Your task to perform on an android device: open the mobile data screen to see how much data has been used Image 0: 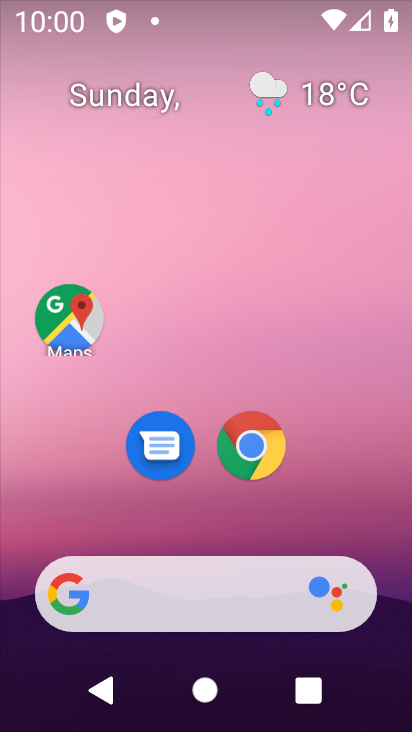
Step 0: drag from (206, 510) to (218, 43)
Your task to perform on an android device: open the mobile data screen to see how much data has been used Image 1: 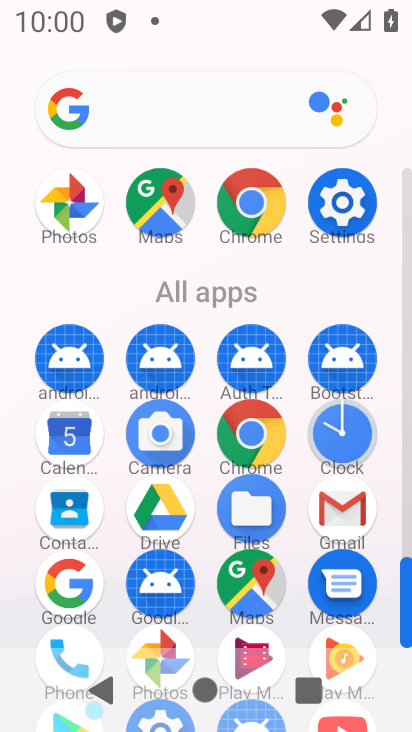
Step 1: click (339, 201)
Your task to perform on an android device: open the mobile data screen to see how much data has been used Image 2: 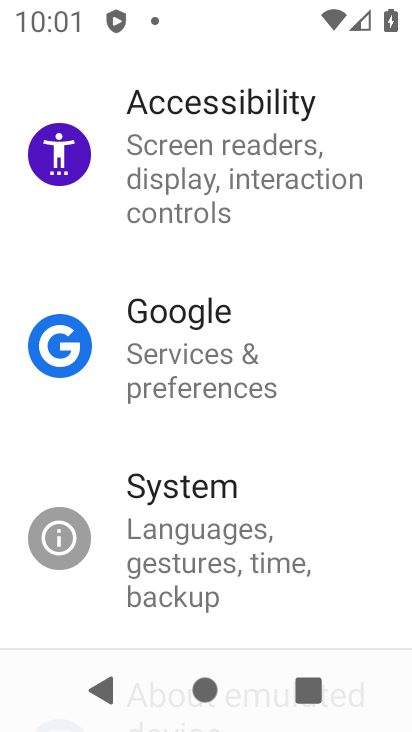
Step 2: drag from (226, 111) to (233, 639)
Your task to perform on an android device: open the mobile data screen to see how much data has been used Image 3: 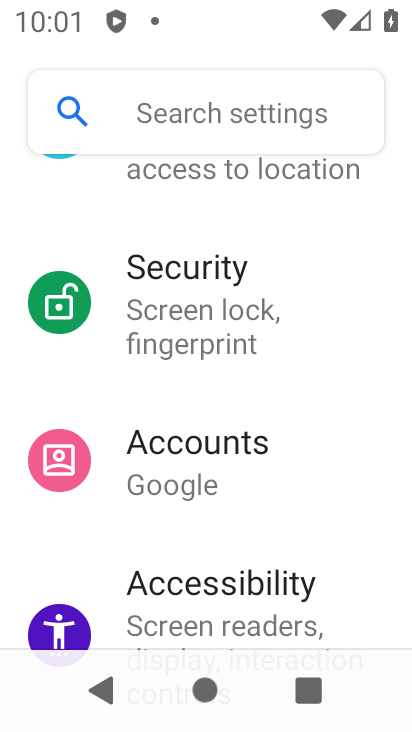
Step 3: drag from (211, 170) to (226, 681)
Your task to perform on an android device: open the mobile data screen to see how much data has been used Image 4: 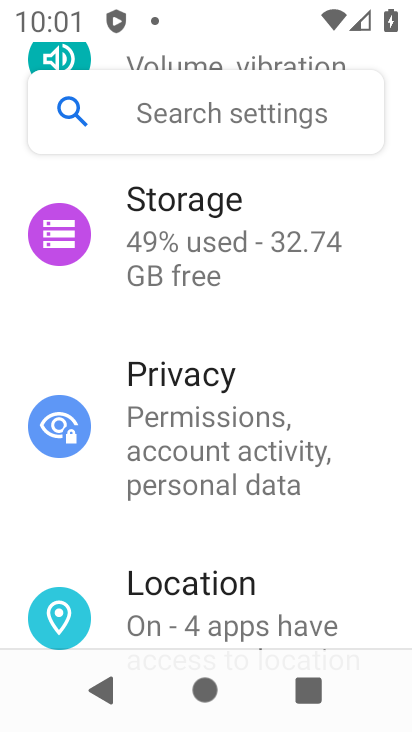
Step 4: drag from (222, 165) to (229, 696)
Your task to perform on an android device: open the mobile data screen to see how much data has been used Image 5: 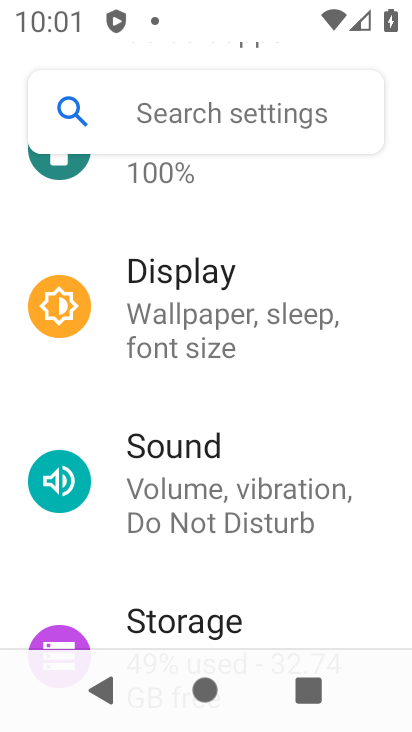
Step 5: drag from (257, 176) to (249, 687)
Your task to perform on an android device: open the mobile data screen to see how much data has been used Image 6: 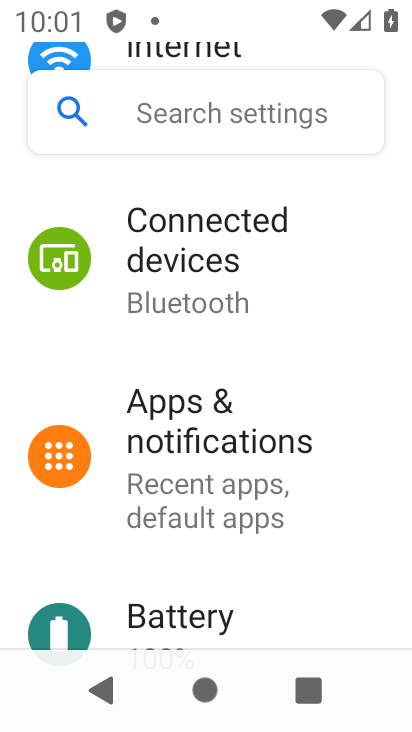
Step 6: drag from (246, 175) to (267, 617)
Your task to perform on an android device: open the mobile data screen to see how much data has been used Image 7: 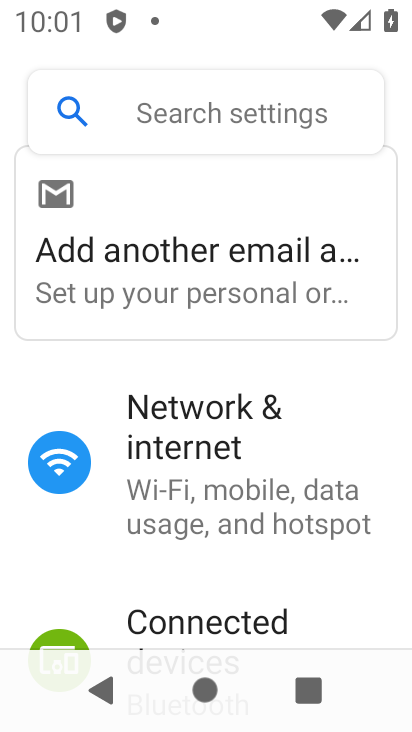
Step 7: click (260, 437)
Your task to perform on an android device: open the mobile data screen to see how much data has been used Image 8: 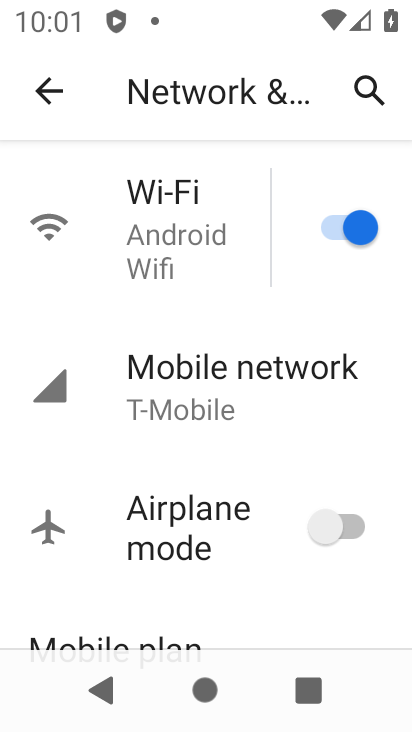
Step 8: click (257, 395)
Your task to perform on an android device: open the mobile data screen to see how much data has been used Image 9: 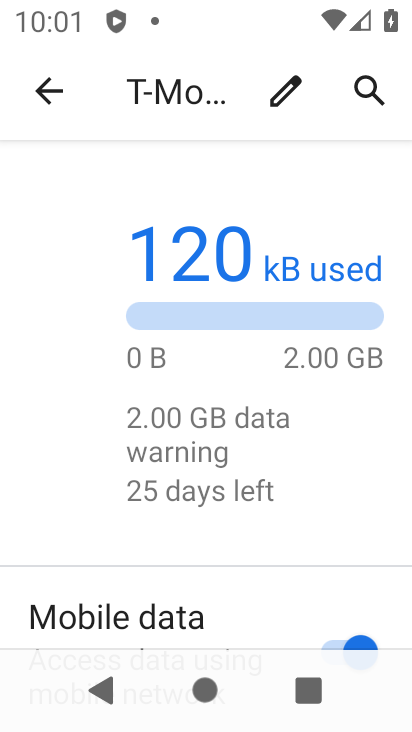
Step 9: drag from (280, 585) to (282, 199)
Your task to perform on an android device: open the mobile data screen to see how much data has been used Image 10: 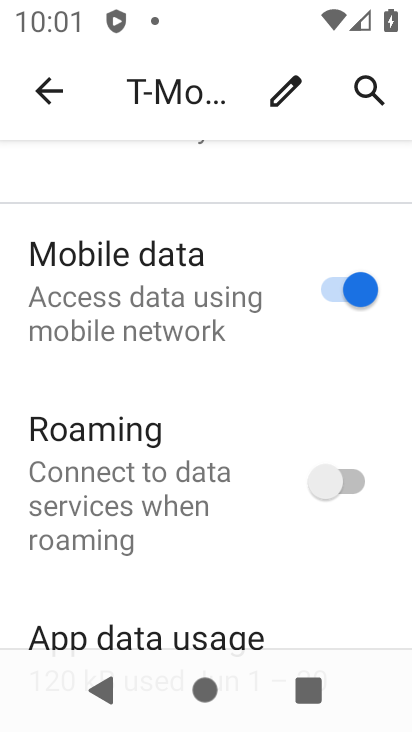
Step 10: drag from (219, 584) to (236, 233)
Your task to perform on an android device: open the mobile data screen to see how much data has been used Image 11: 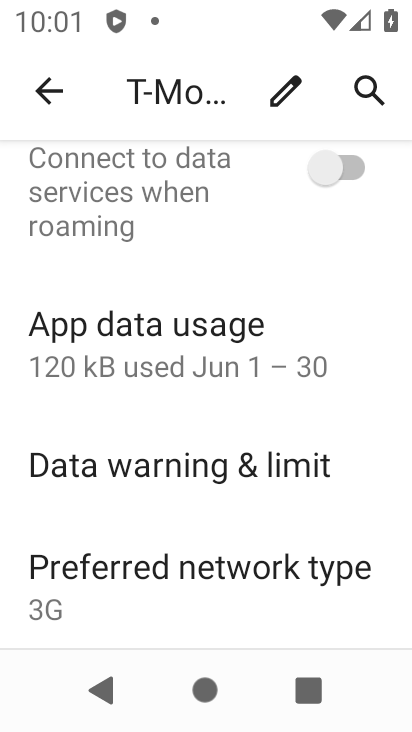
Step 11: click (220, 338)
Your task to perform on an android device: open the mobile data screen to see how much data has been used Image 12: 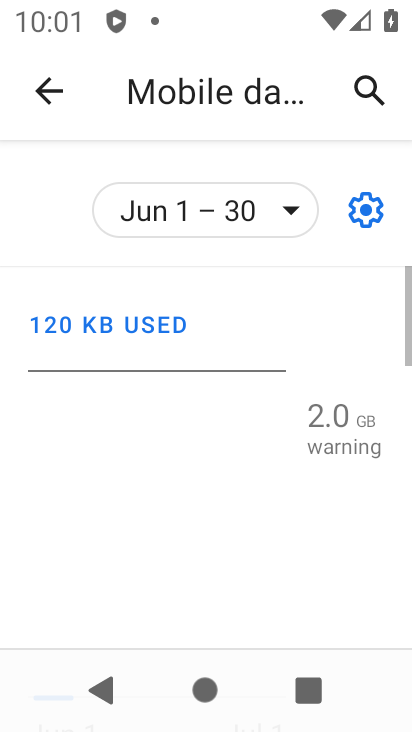
Step 12: task complete